Your task to perform on an android device: Open Google Chrome and open the bookmarks view Image 0: 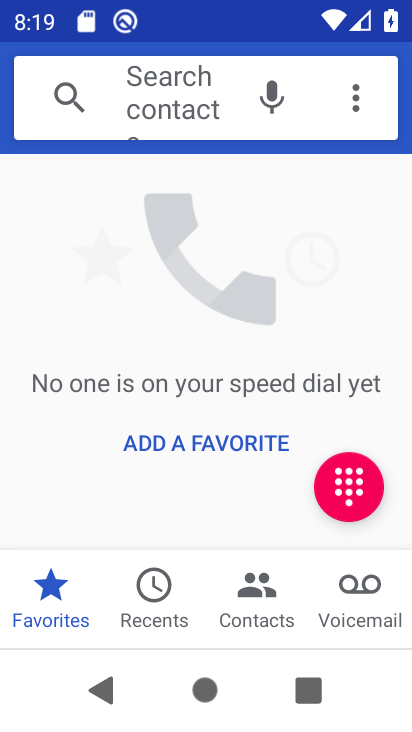
Step 0: press home button
Your task to perform on an android device: Open Google Chrome and open the bookmarks view Image 1: 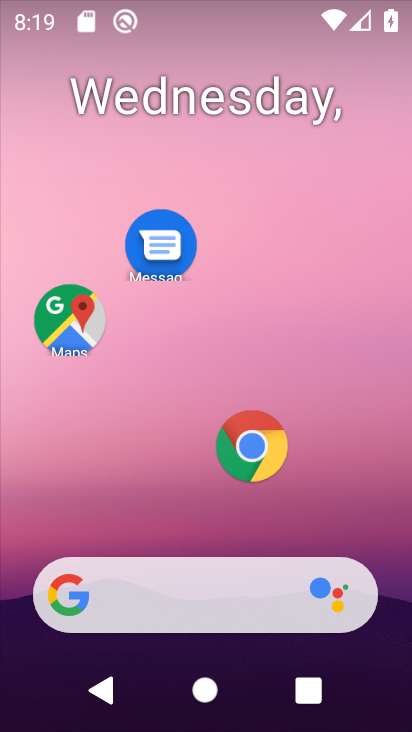
Step 1: click (249, 439)
Your task to perform on an android device: Open Google Chrome and open the bookmarks view Image 2: 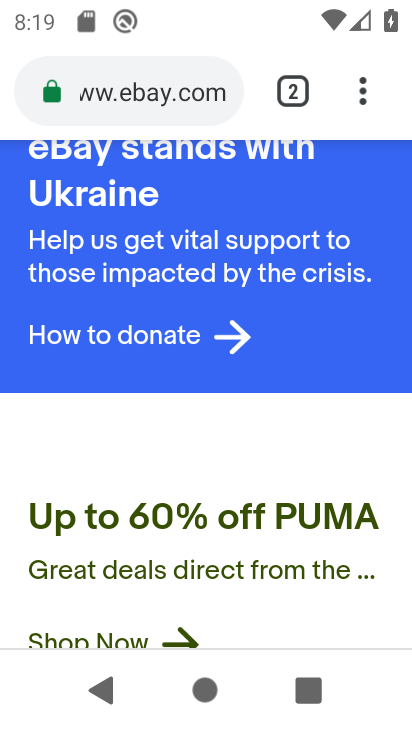
Step 2: click (363, 82)
Your task to perform on an android device: Open Google Chrome and open the bookmarks view Image 3: 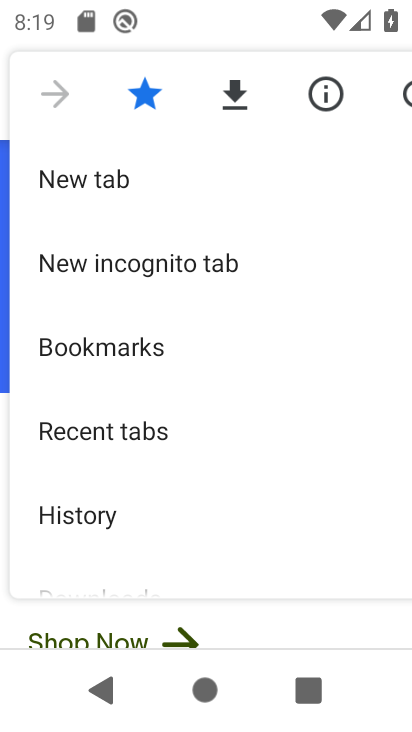
Step 3: click (177, 345)
Your task to perform on an android device: Open Google Chrome and open the bookmarks view Image 4: 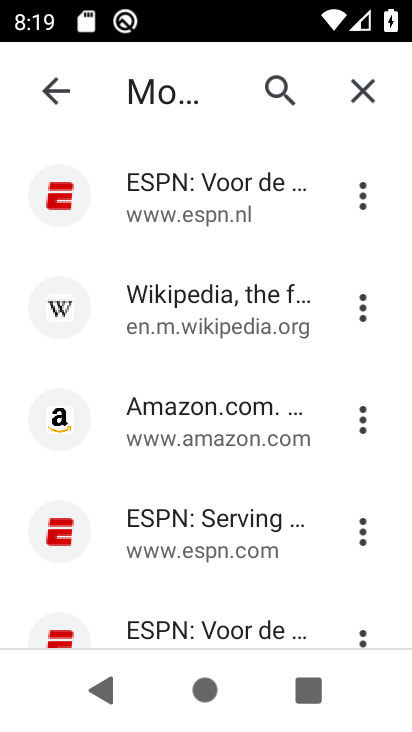
Step 4: task complete